Your task to perform on an android device: Show me popular games on the Play Store Image 0: 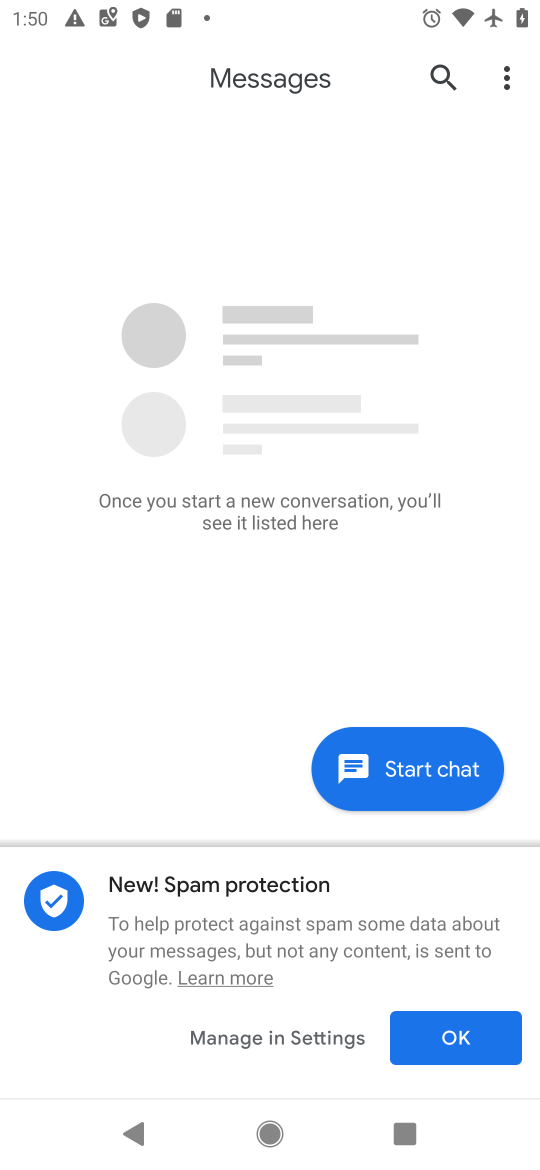
Step 0: drag from (401, 976) to (411, 897)
Your task to perform on an android device: Show me popular games on the Play Store Image 1: 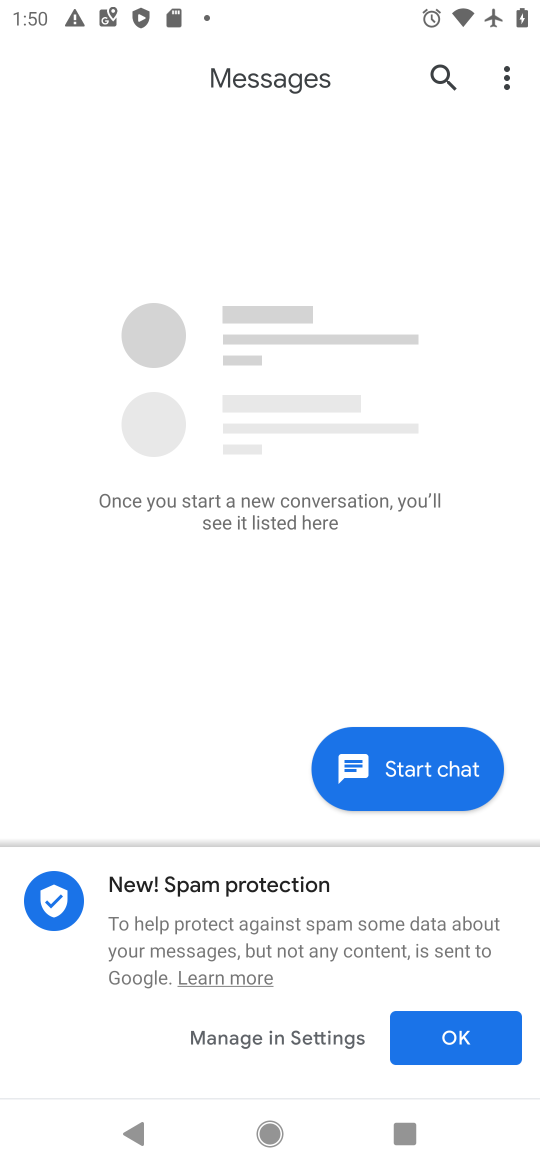
Step 1: press home button
Your task to perform on an android device: Show me popular games on the Play Store Image 2: 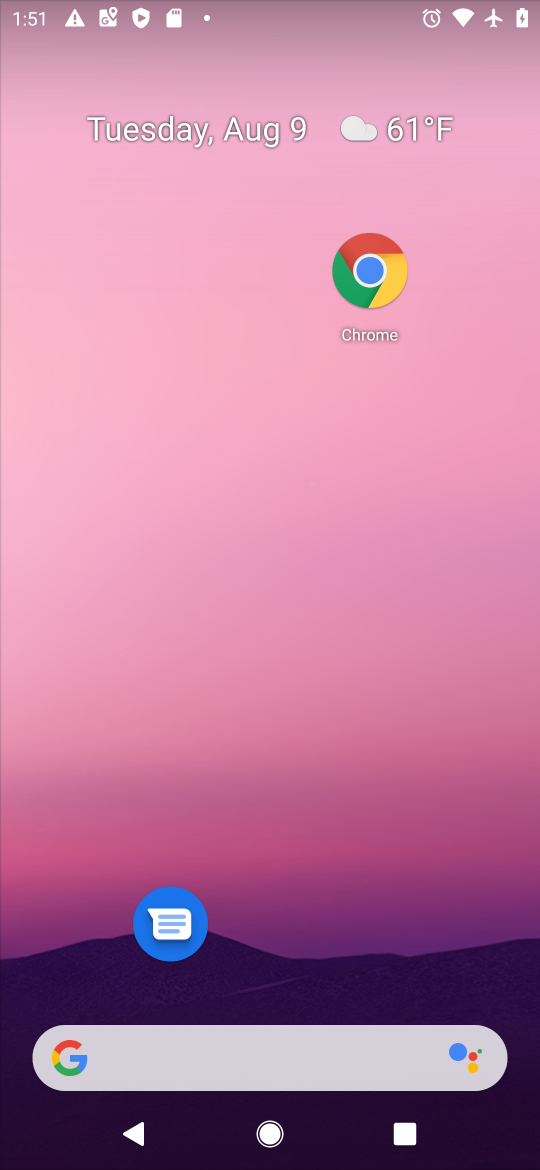
Step 2: drag from (259, 1006) to (195, 65)
Your task to perform on an android device: Show me popular games on the Play Store Image 3: 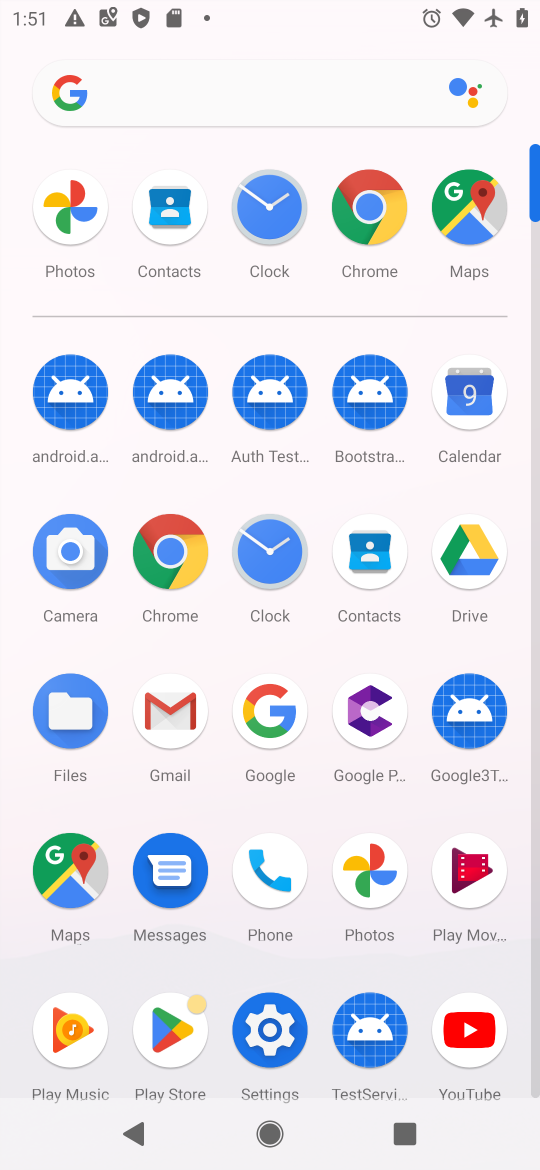
Step 3: click (173, 1025)
Your task to perform on an android device: Show me popular games on the Play Store Image 4: 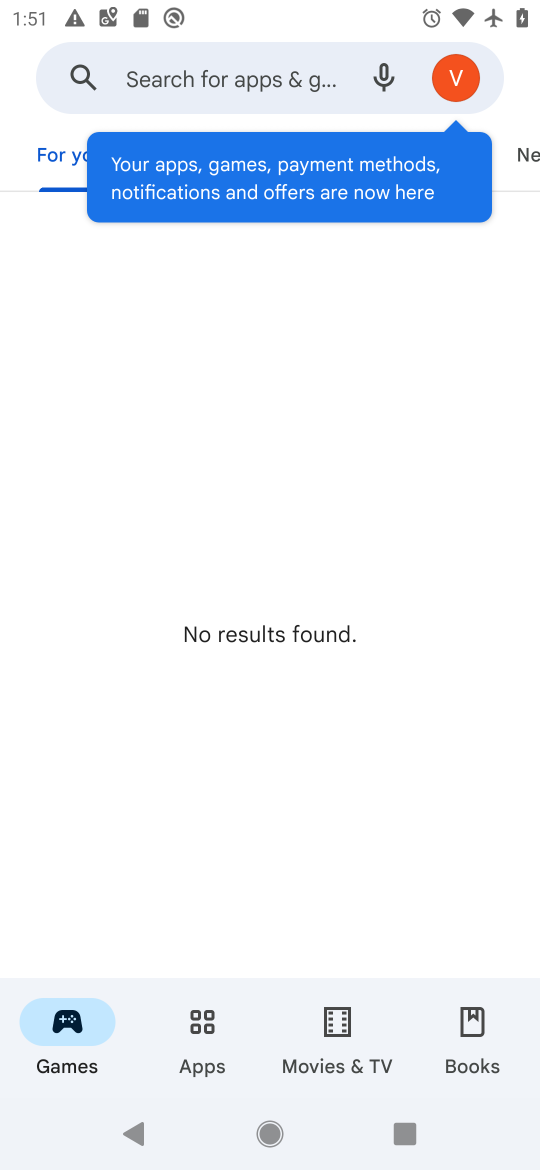
Step 4: task complete